Your task to perform on an android device: Search for Italian restaurants on Maps Image 0: 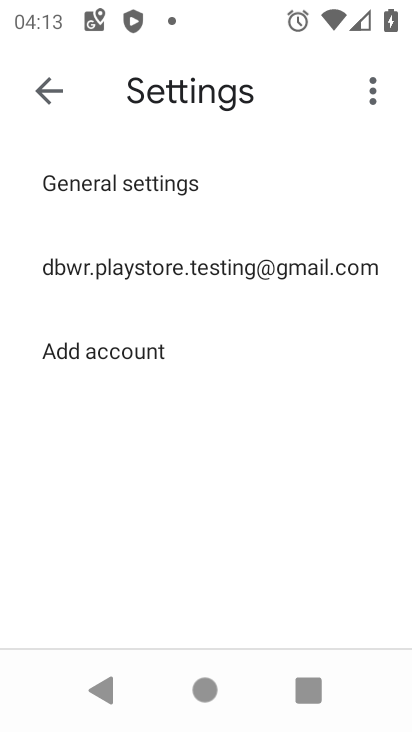
Step 0: press home button
Your task to perform on an android device: Search for Italian restaurants on Maps Image 1: 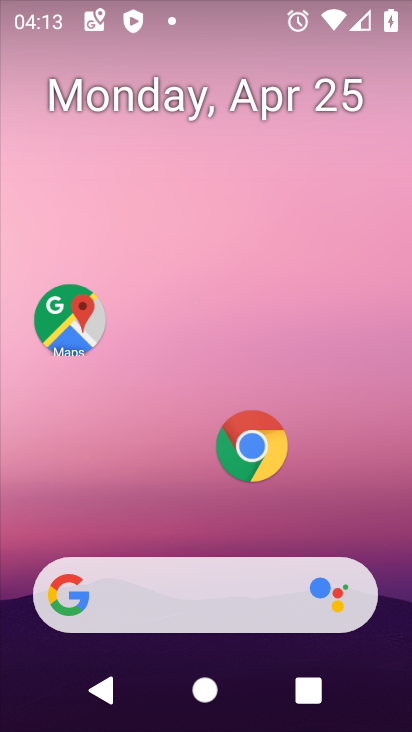
Step 1: click (66, 345)
Your task to perform on an android device: Search for Italian restaurants on Maps Image 2: 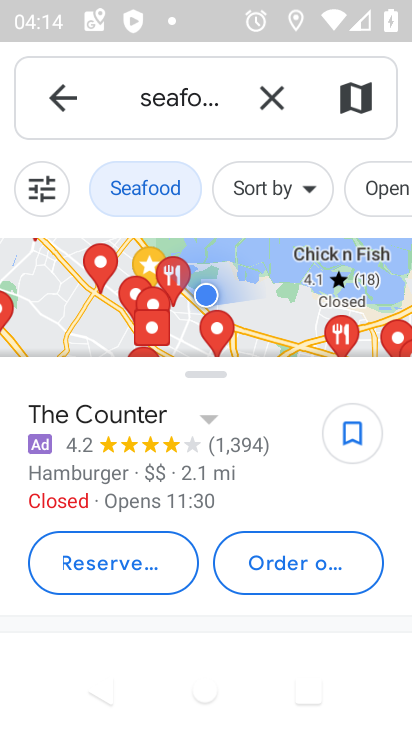
Step 2: click (287, 108)
Your task to perform on an android device: Search for Italian restaurants on Maps Image 3: 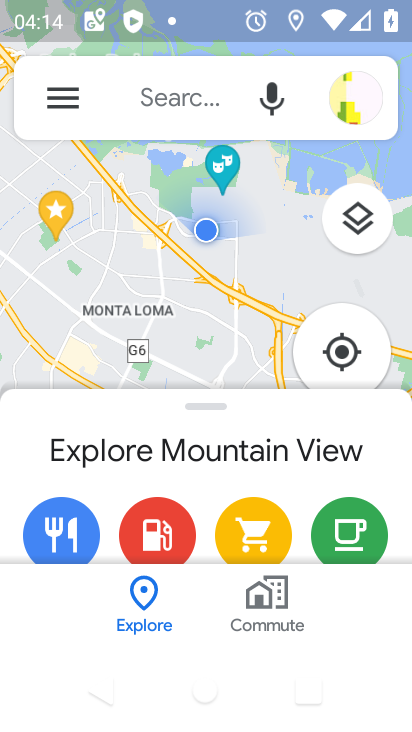
Step 3: click (160, 90)
Your task to perform on an android device: Search for Italian restaurants on Maps Image 4: 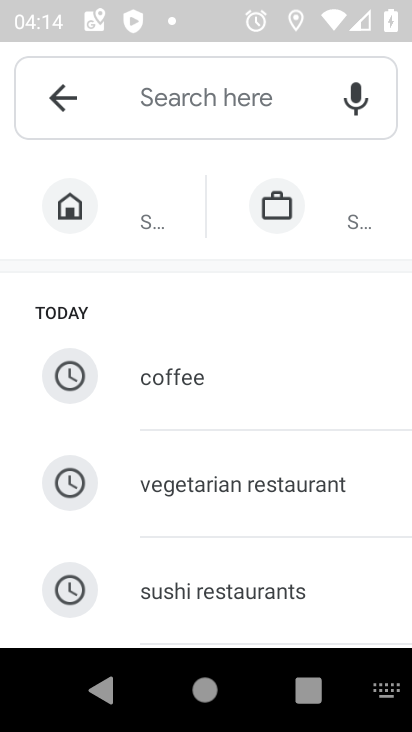
Step 4: type "italian restaurant"
Your task to perform on an android device: Search for Italian restaurants on Maps Image 5: 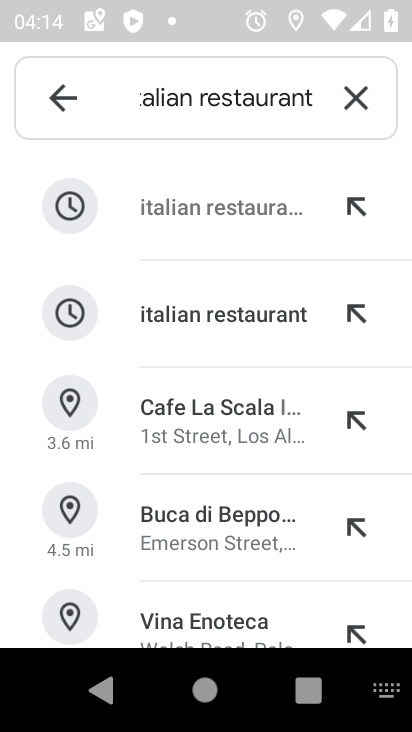
Step 5: click (264, 221)
Your task to perform on an android device: Search for Italian restaurants on Maps Image 6: 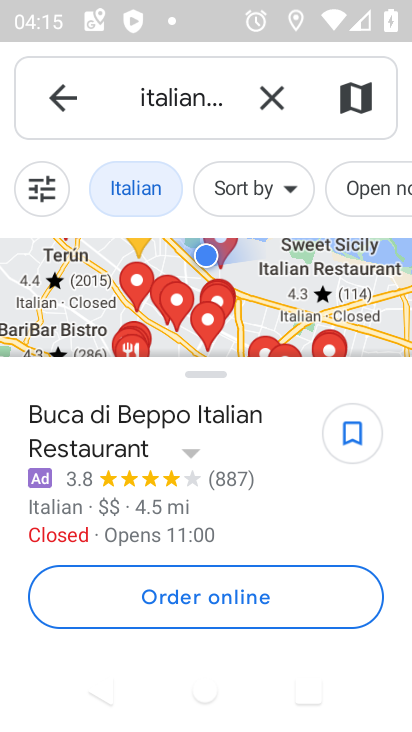
Step 6: task complete